Your task to perform on an android device: turn on showing notifications on the lock screen Image 0: 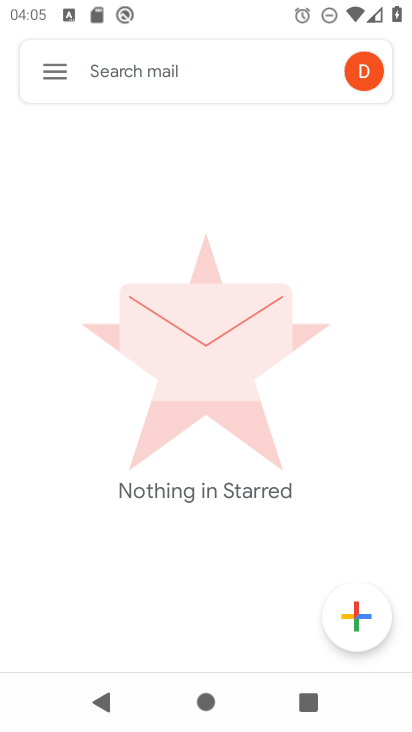
Step 0: press home button
Your task to perform on an android device: turn on showing notifications on the lock screen Image 1: 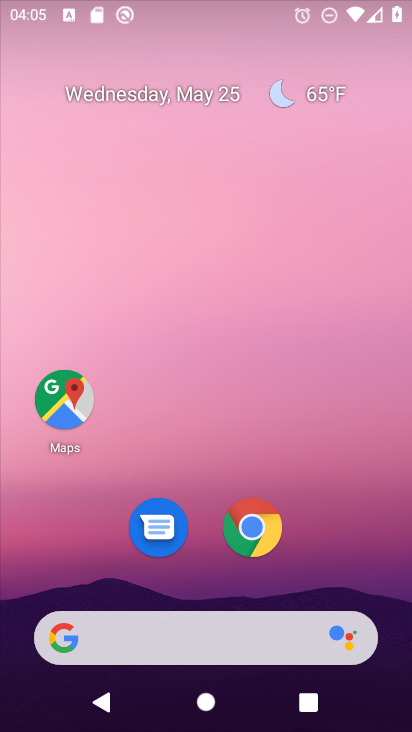
Step 1: drag from (324, 612) to (376, 28)
Your task to perform on an android device: turn on showing notifications on the lock screen Image 2: 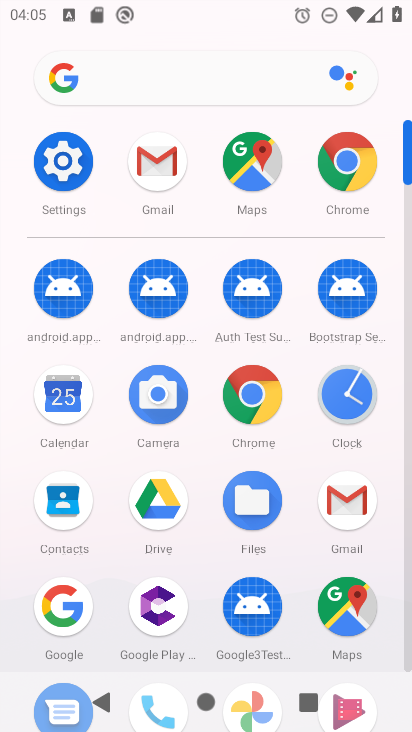
Step 2: click (60, 172)
Your task to perform on an android device: turn on showing notifications on the lock screen Image 3: 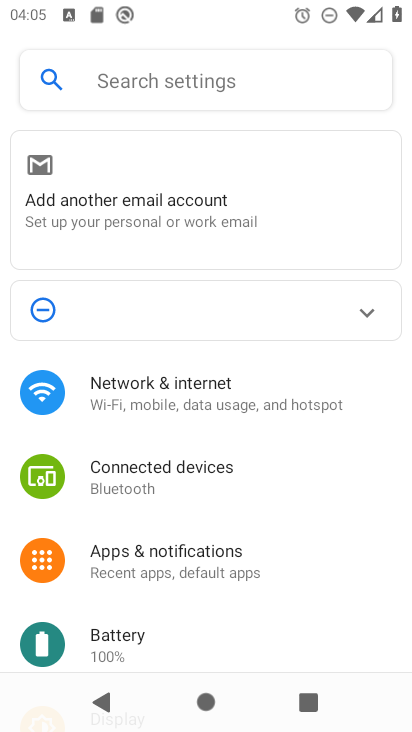
Step 3: click (210, 559)
Your task to perform on an android device: turn on showing notifications on the lock screen Image 4: 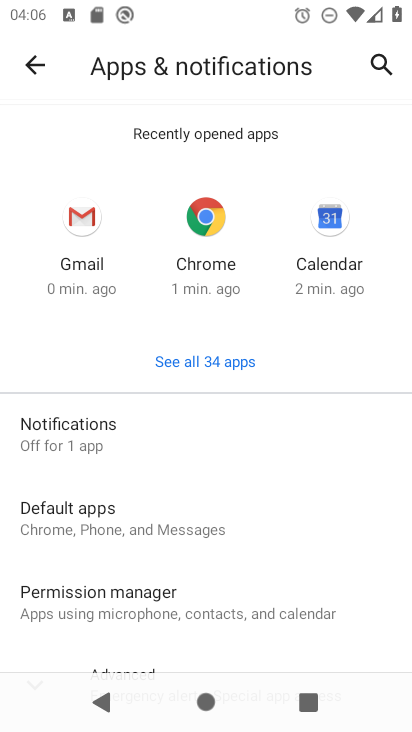
Step 4: click (155, 444)
Your task to perform on an android device: turn on showing notifications on the lock screen Image 5: 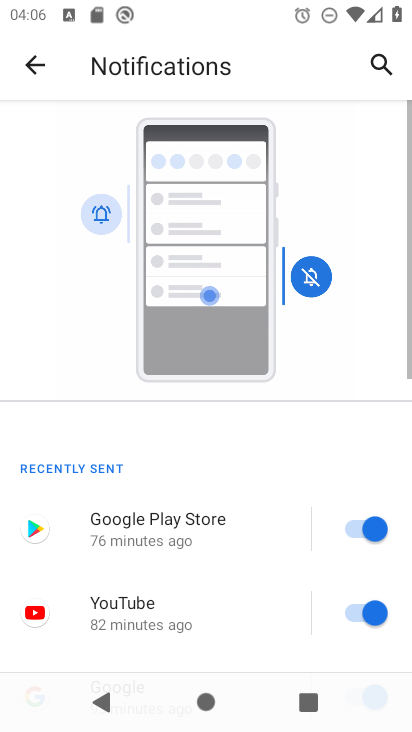
Step 5: drag from (287, 600) to (326, 6)
Your task to perform on an android device: turn on showing notifications on the lock screen Image 6: 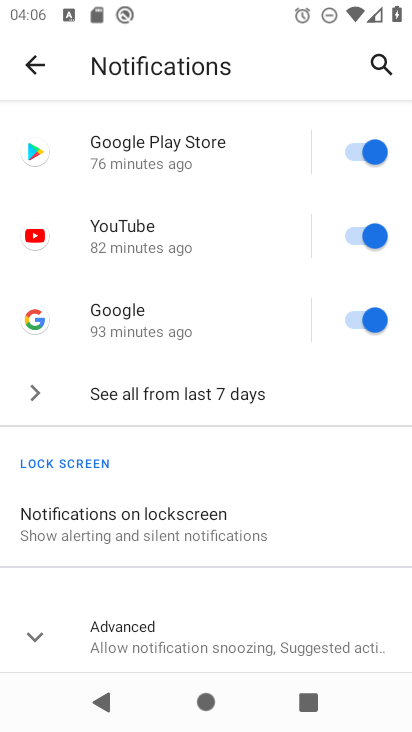
Step 6: click (218, 531)
Your task to perform on an android device: turn on showing notifications on the lock screen Image 7: 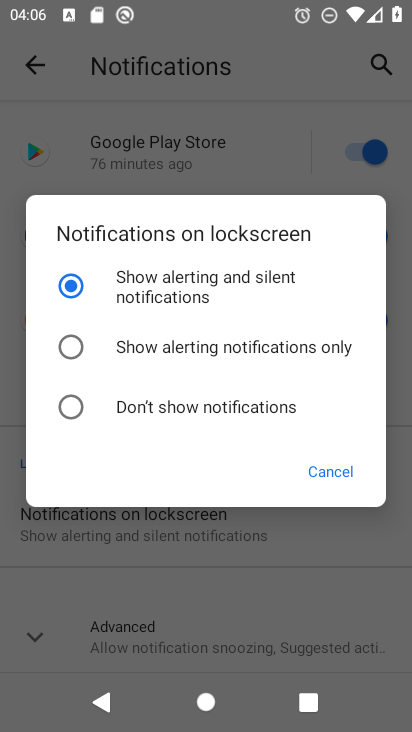
Step 7: task complete